Your task to perform on an android device: Show me popular videos on Youtube Image 0: 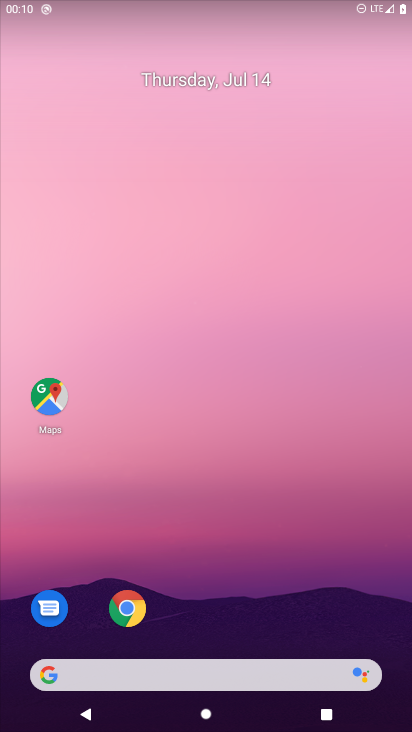
Step 0: drag from (329, 605) to (222, 29)
Your task to perform on an android device: Show me popular videos on Youtube Image 1: 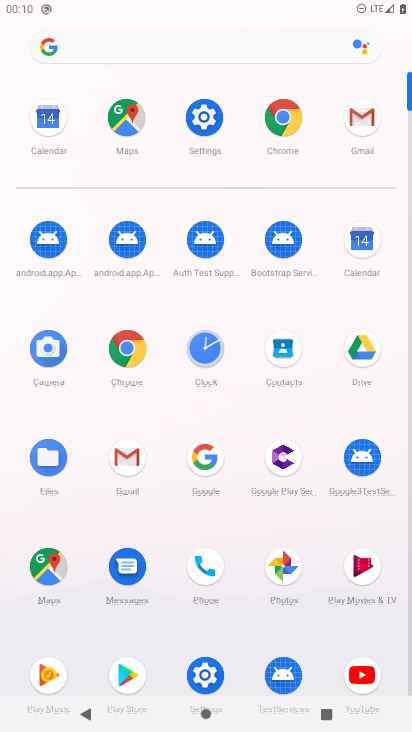
Step 1: click (357, 658)
Your task to perform on an android device: Show me popular videos on Youtube Image 2: 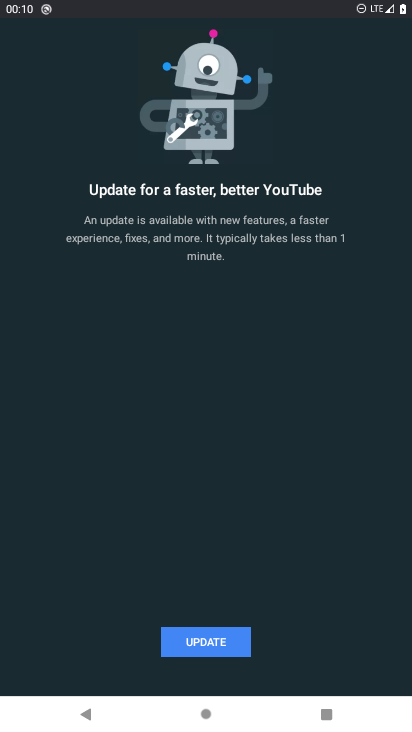
Step 2: click (224, 658)
Your task to perform on an android device: Show me popular videos on Youtube Image 3: 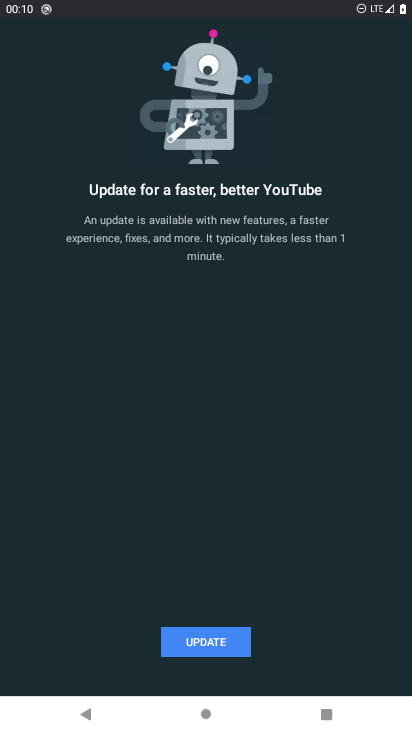
Step 3: click (214, 643)
Your task to perform on an android device: Show me popular videos on Youtube Image 4: 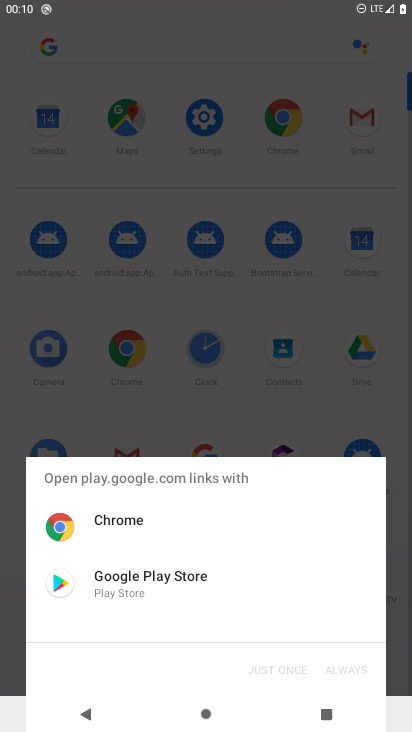
Step 4: click (170, 584)
Your task to perform on an android device: Show me popular videos on Youtube Image 5: 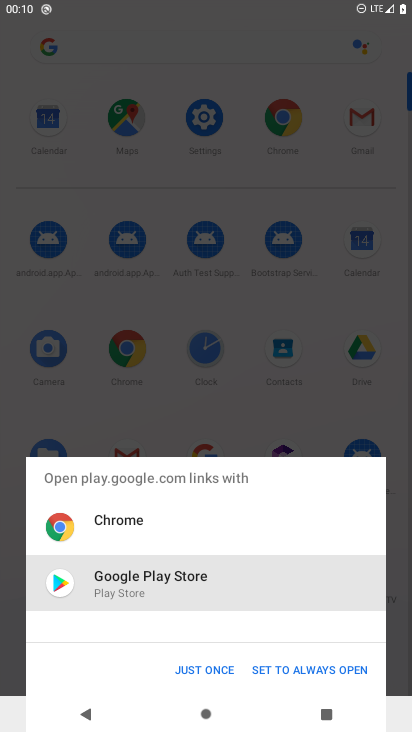
Step 5: drag from (204, 688) to (158, 669)
Your task to perform on an android device: Show me popular videos on Youtube Image 6: 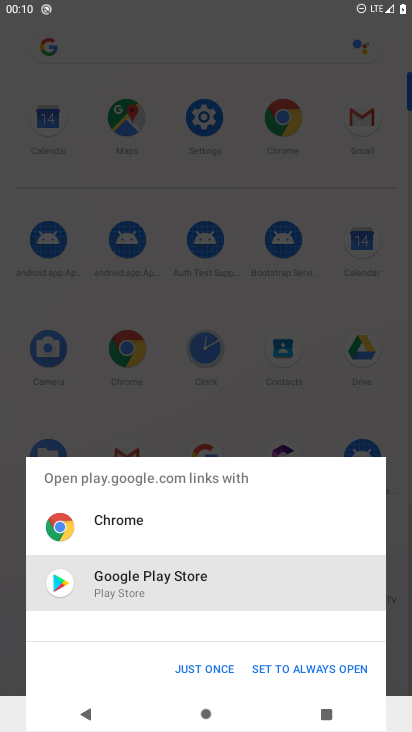
Step 6: click (186, 669)
Your task to perform on an android device: Show me popular videos on Youtube Image 7: 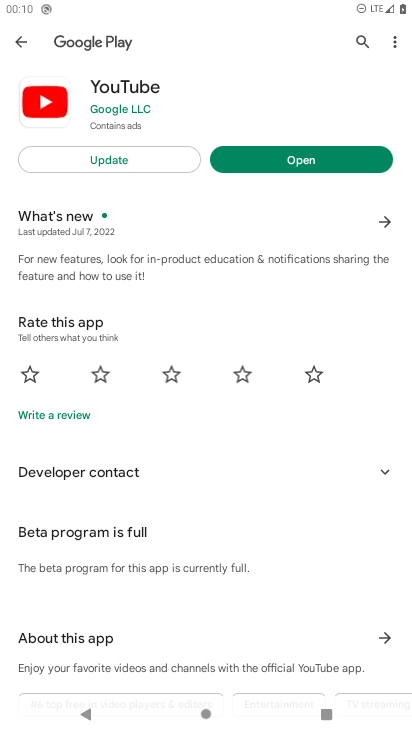
Step 7: click (52, 160)
Your task to perform on an android device: Show me popular videos on Youtube Image 8: 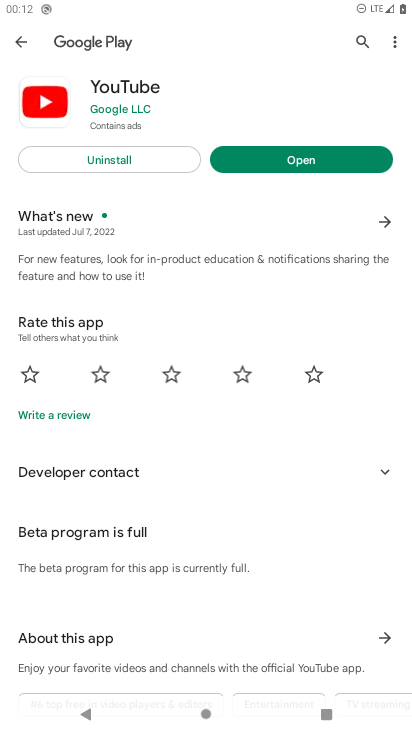
Step 8: click (296, 165)
Your task to perform on an android device: Show me popular videos on Youtube Image 9: 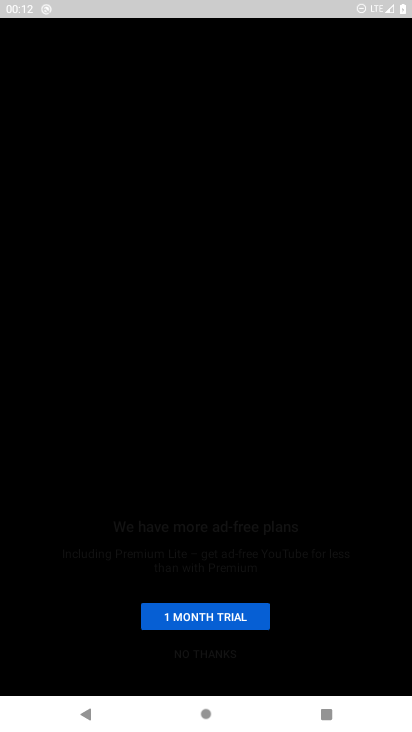
Step 9: click (356, 40)
Your task to perform on an android device: Show me popular videos on Youtube Image 10: 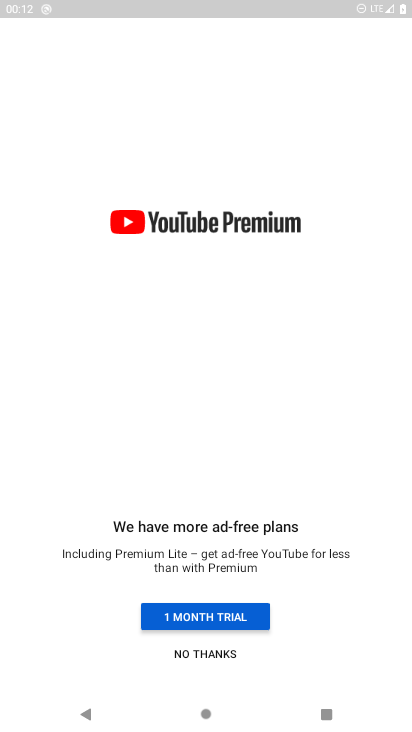
Step 10: click (177, 659)
Your task to perform on an android device: Show me popular videos on Youtube Image 11: 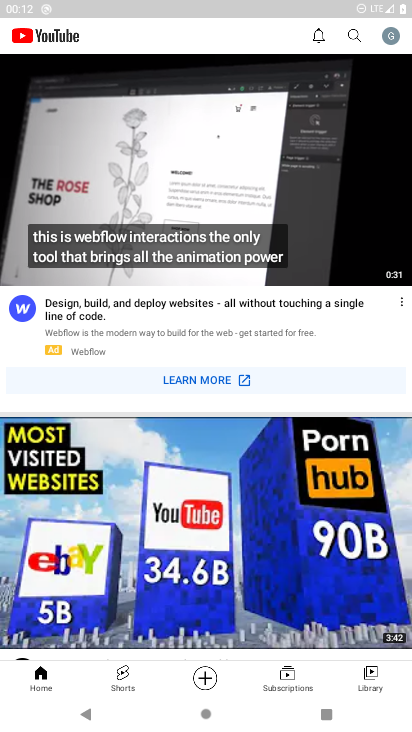
Step 11: click (363, 37)
Your task to perform on an android device: Show me popular videos on Youtube Image 12: 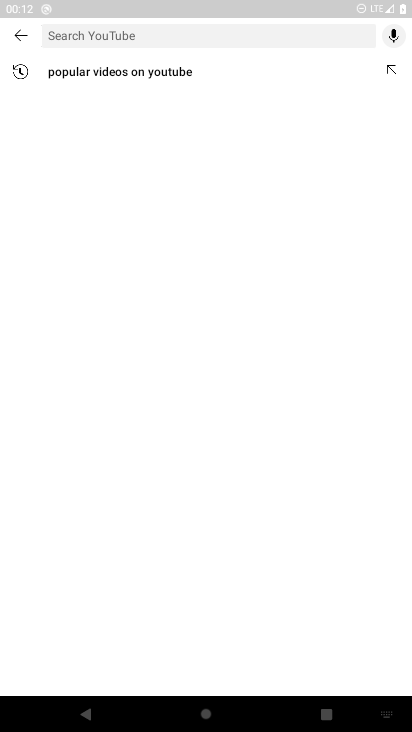
Step 12: type "popular videos on Youtube"
Your task to perform on an android device: Show me popular videos on Youtube Image 13: 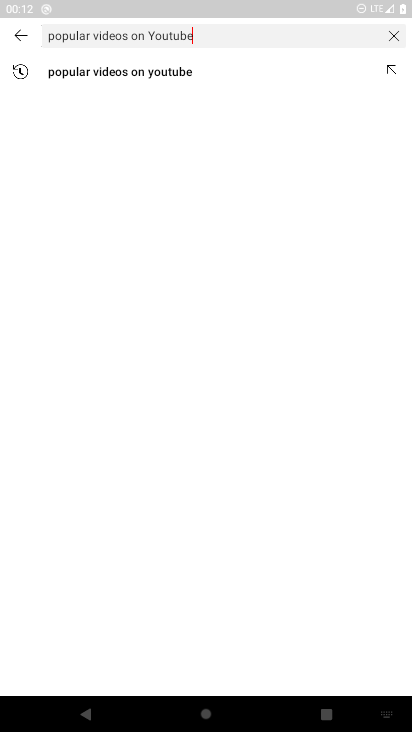
Step 13: type ""
Your task to perform on an android device: Show me popular videos on Youtube Image 14: 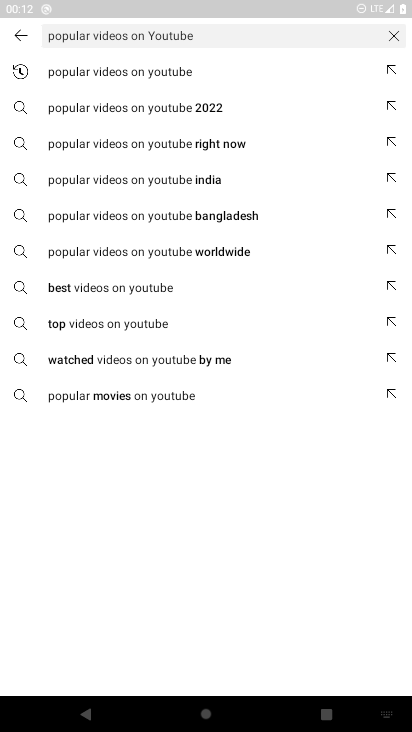
Step 14: click (154, 84)
Your task to perform on an android device: Show me popular videos on Youtube Image 15: 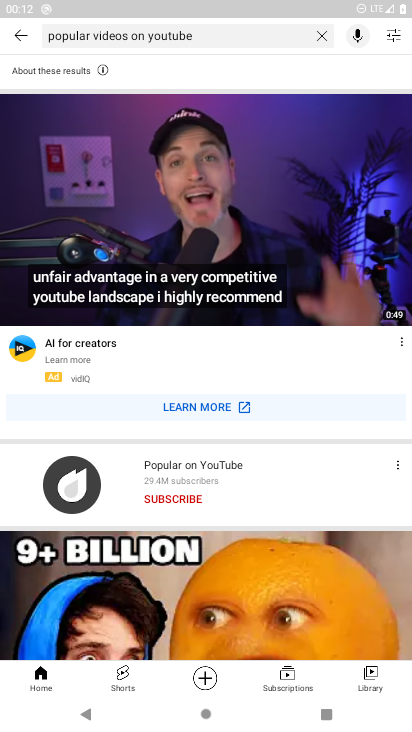
Step 15: task complete